Your task to perform on an android device: Go to wifi settings Image 0: 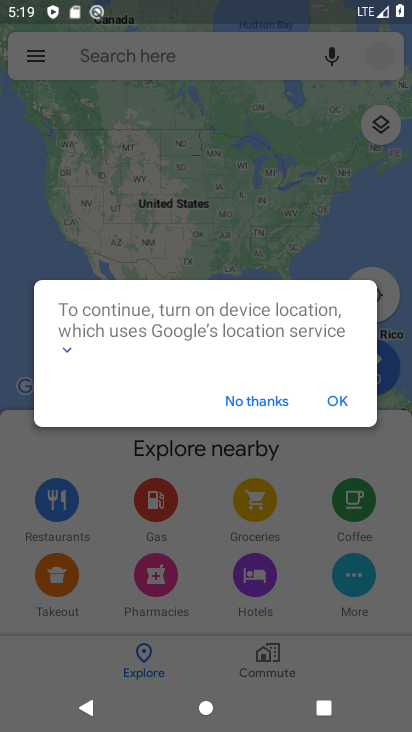
Step 0: press home button
Your task to perform on an android device: Go to wifi settings Image 1: 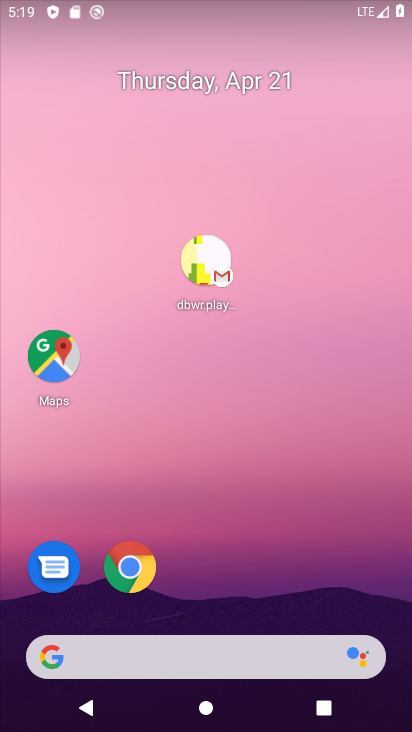
Step 1: drag from (193, 587) to (314, 53)
Your task to perform on an android device: Go to wifi settings Image 2: 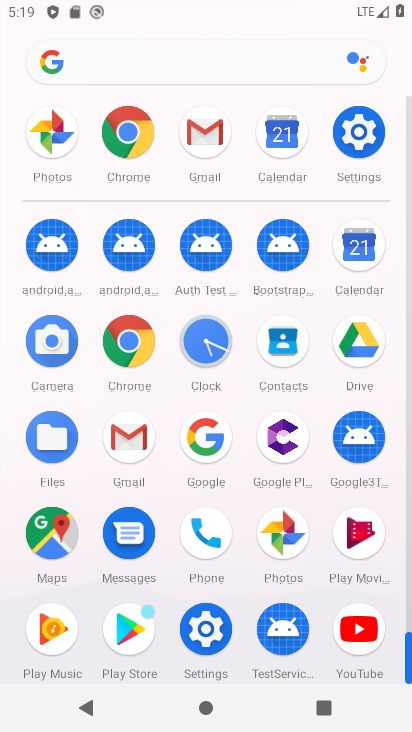
Step 2: click (371, 127)
Your task to perform on an android device: Go to wifi settings Image 3: 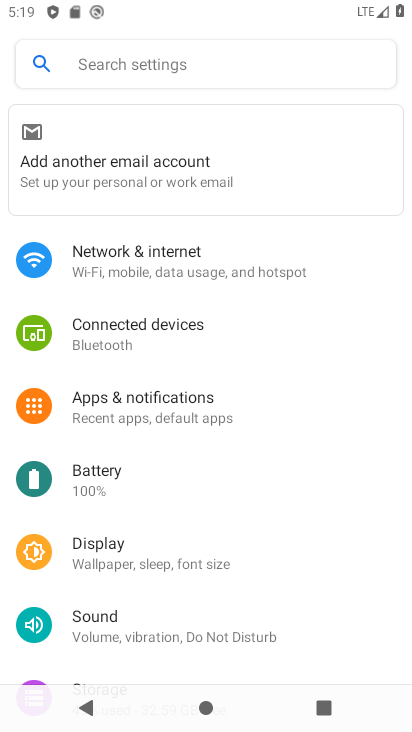
Step 3: click (156, 269)
Your task to perform on an android device: Go to wifi settings Image 4: 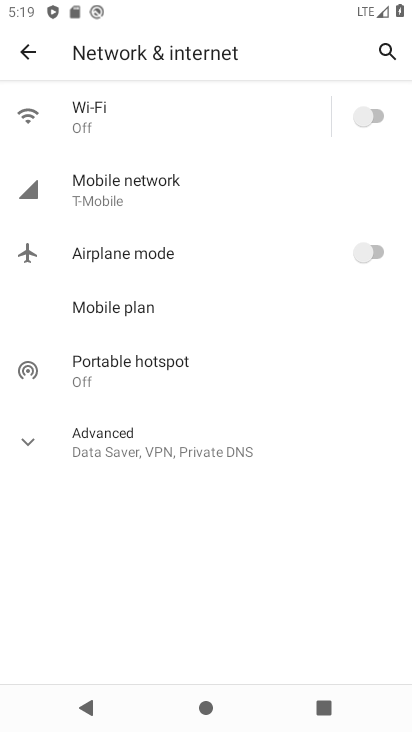
Step 4: click (126, 115)
Your task to perform on an android device: Go to wifi settings Image 5: 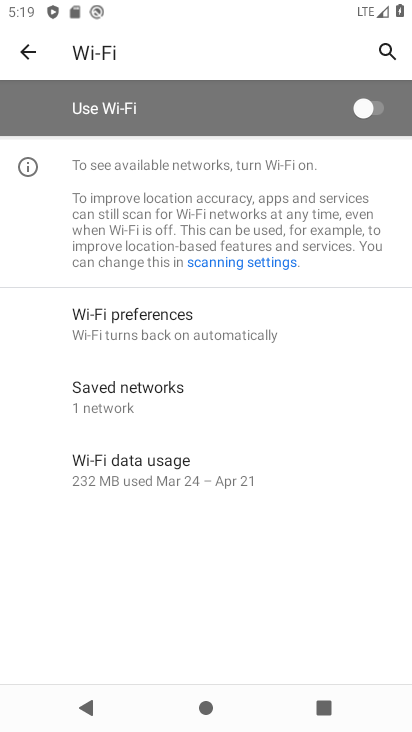
Step 5: task complete